Your task to perform on an android device: Open calendar and show me the second week of next month Image 0: 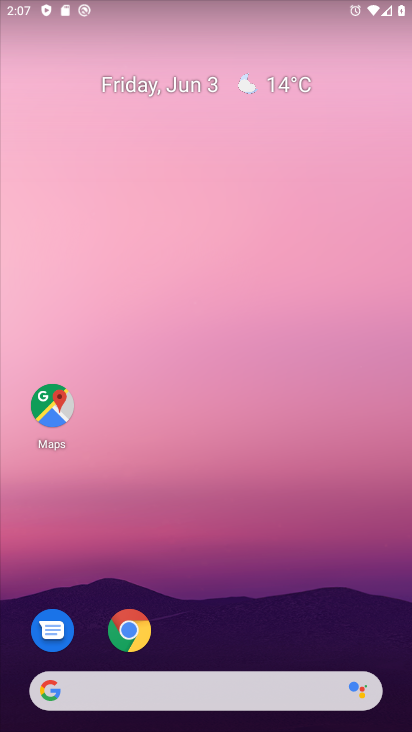
Step 0: drag from (214, 674) to (289, 191)
Your task to perform on an android device: Open calendar and show me the second week of next month Image 1: 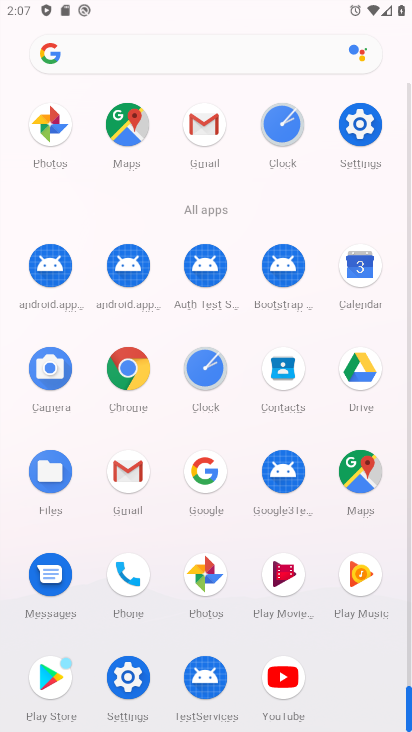
Step 1: drag from (156, 608) to (197, 413)
Your task to perform on an android device: Open calendar and show me the second week of next month Image 2: 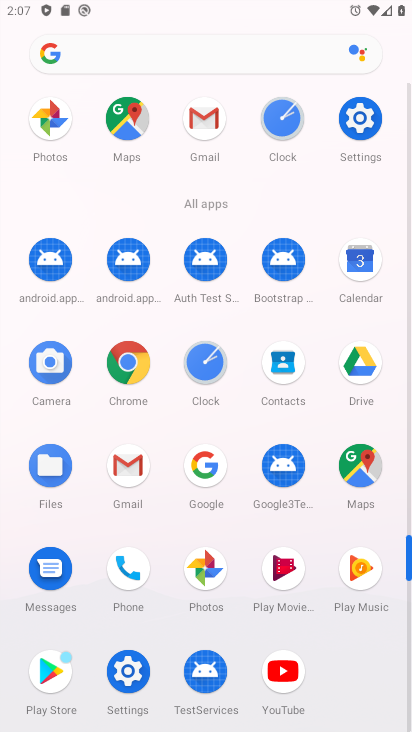
Step 2: click (358, 268)
Your task to perform on an android device: Open calendar and show me the second week of next month Image 3: 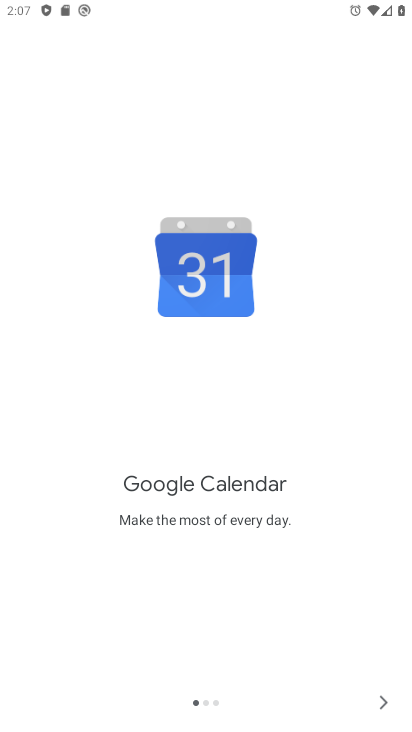
Step 3: click (392, 696)
Your task to perform on an android device: Open calendar and show me the second week of next month Image 4: 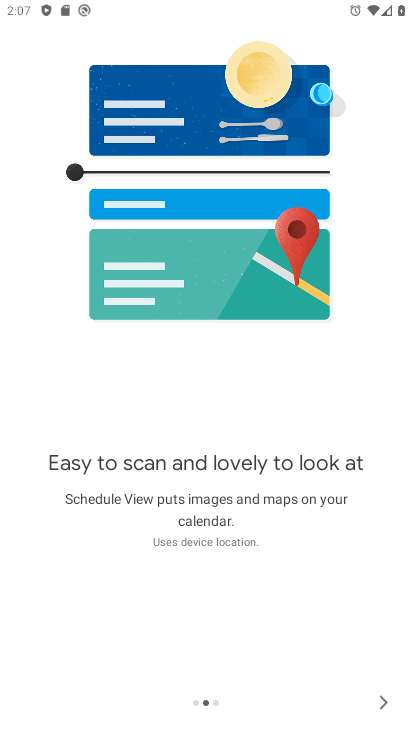
Step 4: click (393, 709)
Your task to perform on an android device: Open calendar and show me the second week of next month Image 5: 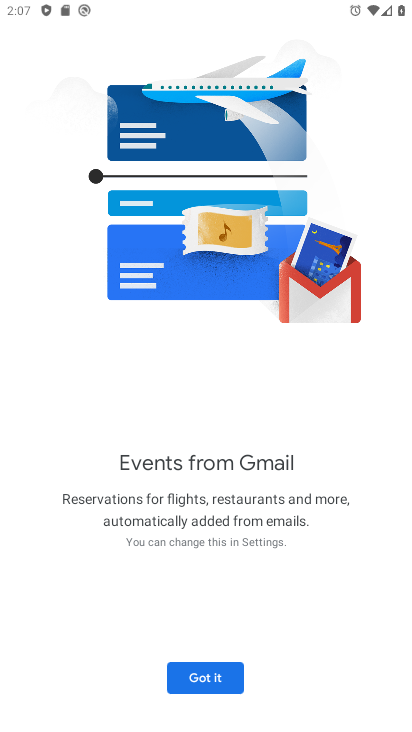
Step 5: click (210, 689)
Your task to perform on an android device: Open calendar and show me the second week of next month Image 6: 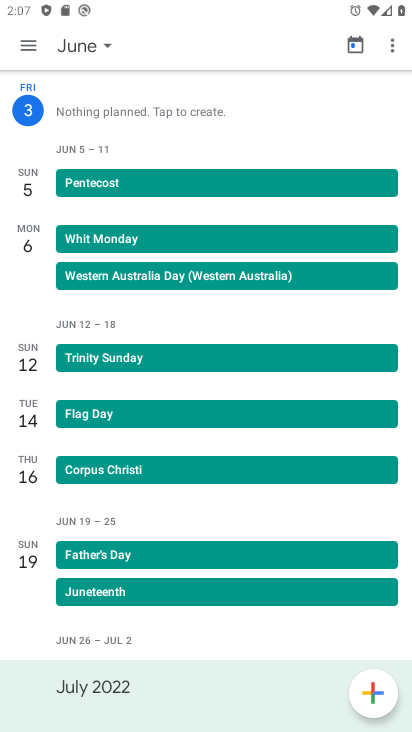
Step 6: click (40, 51)
Your task to perform on an android device: Open calendar and show me the second week of next month Image 7: 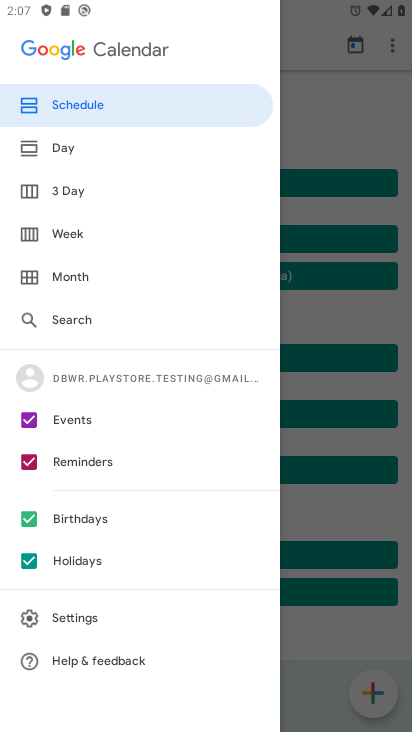
Step 7: click (84, 240)
Your task to perform on an android device: Open calendar and show me the second week of next month Image 8: 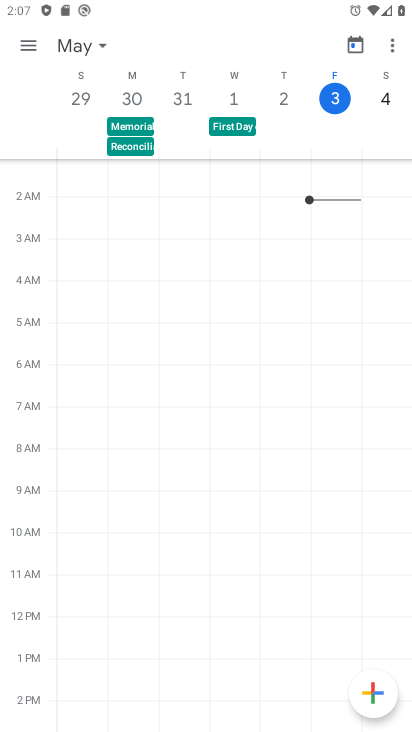
Step 8: click (81, 47)
Your task to perform on an android device: Open calendar and show me the second week of next month Image 9: 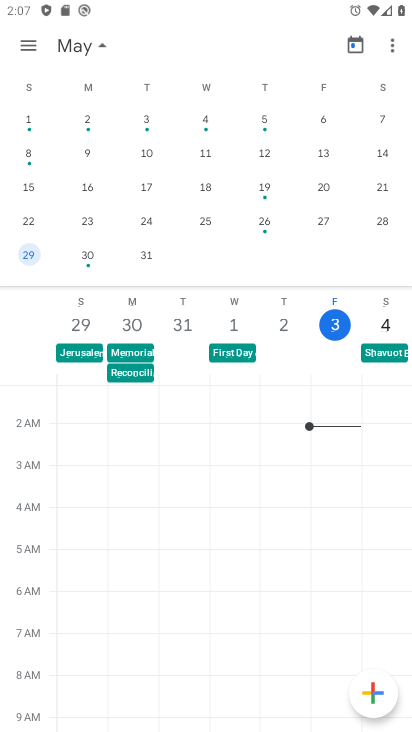
Step 9: drag from (345, 243) to (4, 215)
Your task to perform on an android device: Open calendar and show me the second week of next month Image 10: 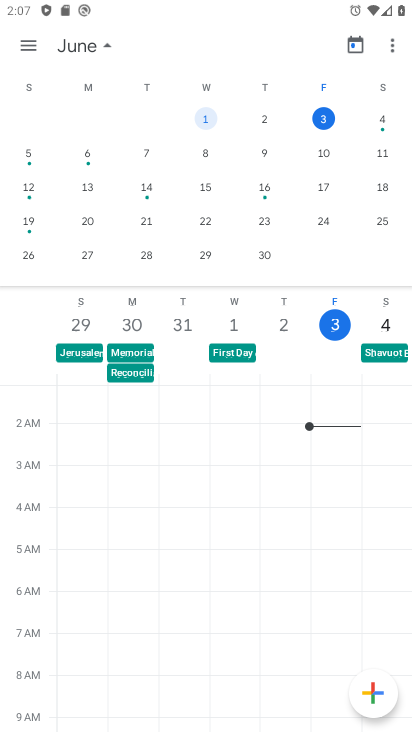
Step 10: drag from (344, 217) to (11, 183)
Your task to perform on an android device: Open calendar and show me the second week of next month Image 11: 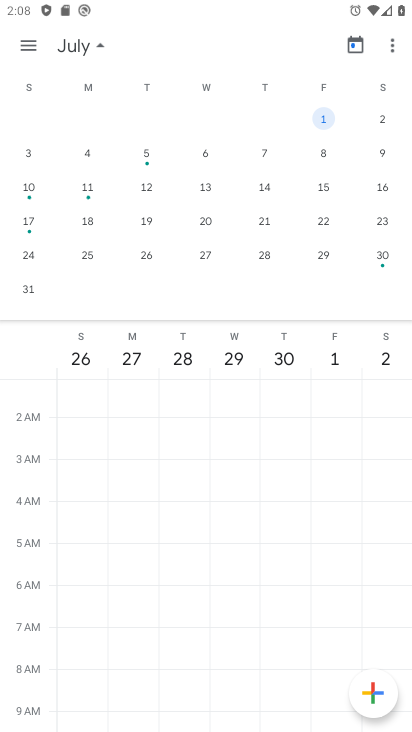
Step 11: click (32, 185)
Your task to perform on an android device: Open calendar and show me the second week of next month Image 12: 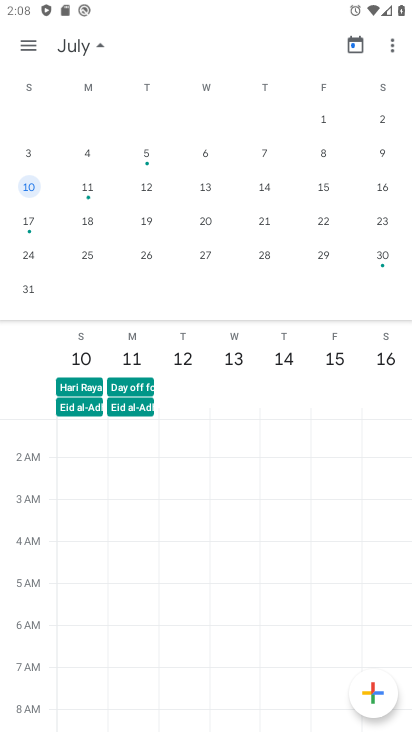
Step 12: task complete